Your task to perform on an android device: Search for Mexican restaurants on Maps Image 0: 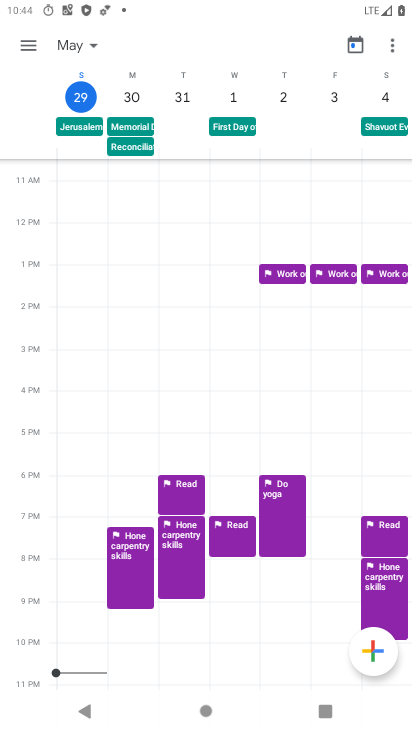
Step 0: press home button
Your task to perform on an android device: Search for Mexican restaurants on Maps Image 1: 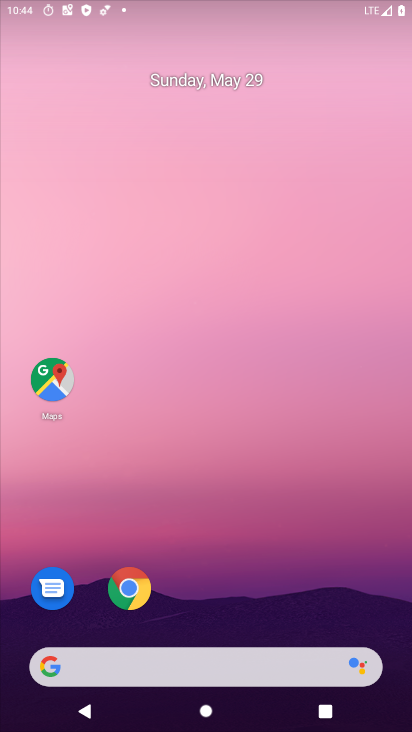
Step 1: drag from (237, 598) to (269, 129)
Your task to perform on an android device: Search for Mexican restaurants on Maps Image 2: 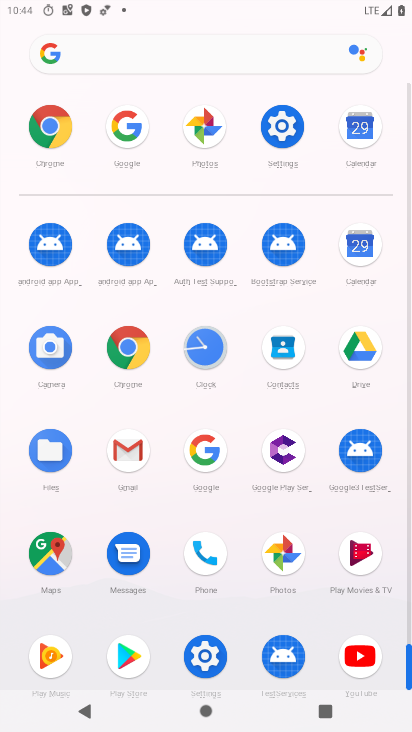
Step 2: click (48, 562)
Your task to perform on an android device: Search for Mexican restaurants on Maps Image 3: 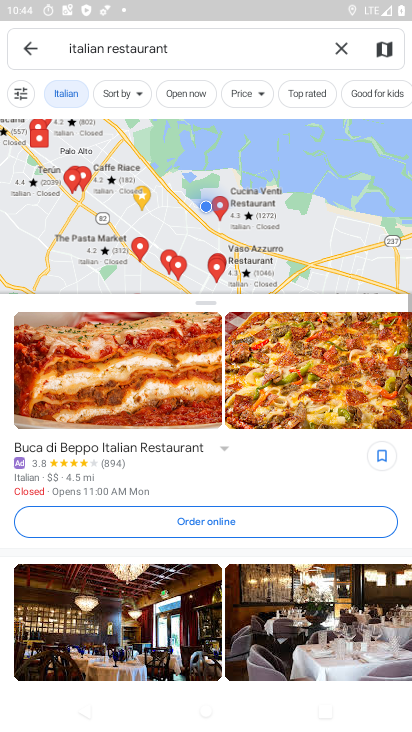
Step 3: click (338, 54)
Your task to perform on an android device: Search for Mexican restaurants on Maps Image 4: 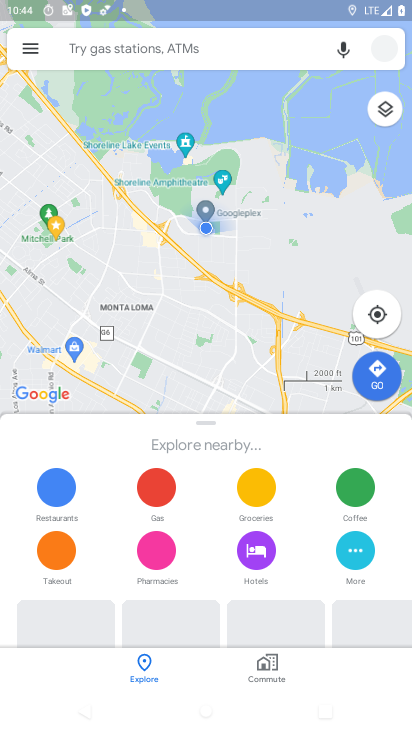
Step 4: click (188, 55)
Your task to perform on an android device: Search for Mexican restaurants on Maps Image 5: 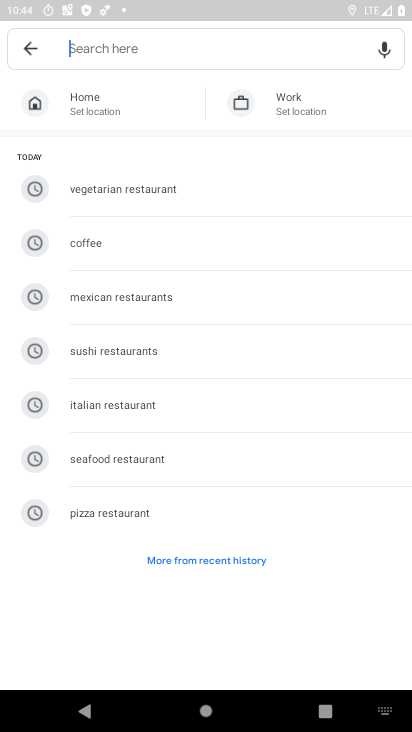
Step 5: click (165, 302)
Your task to perform on an android device: Search for Mexican restaurants on Maps Image 6: 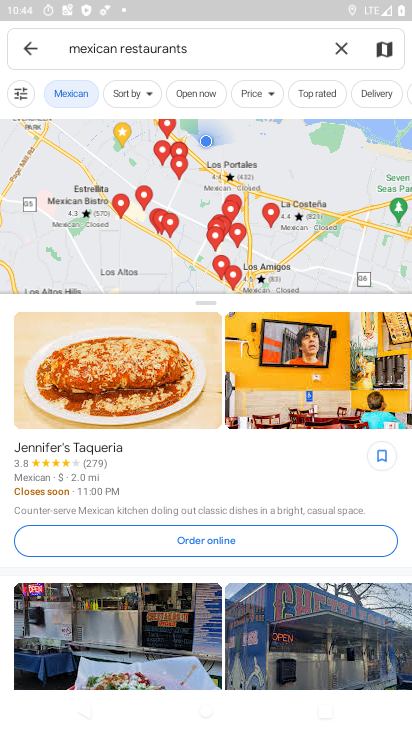
Step 6: task complete